Your task to perform on an android device: all mails in gmail Image 0: 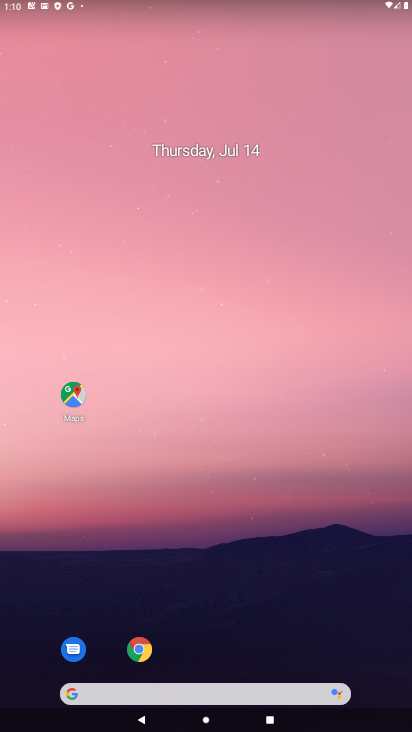
Step 0: drag from (370, 666) to (203, 11)
Your task to perform on an android device: all mails in gmail Image 1: 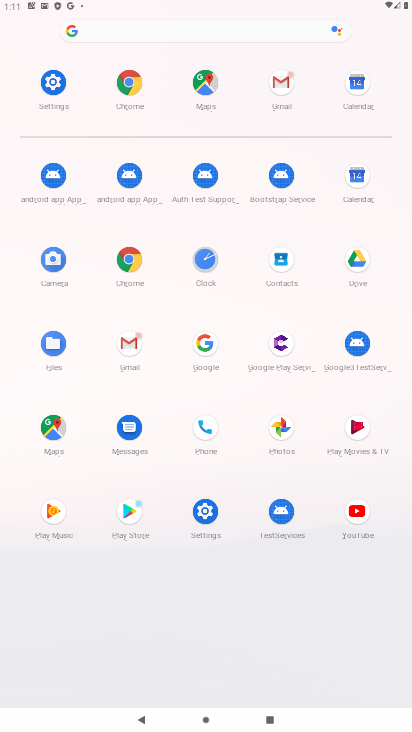
Step 1: click (123, 358)
Your task to perform on an android device: all mails in gmail Image 2: 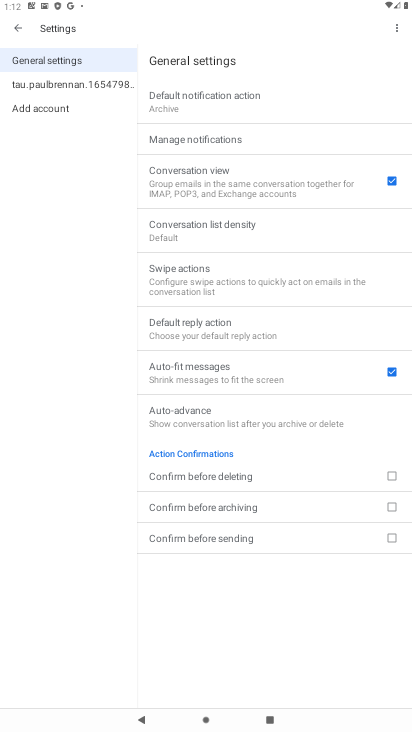
Step 2: press back button
Your task to perform on an android device: all mails in gmail Image 3: 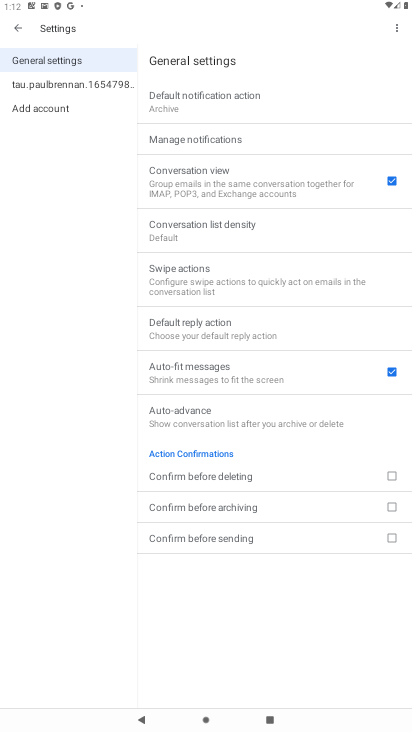
Step 3: click (16, 28)
Your task to perform on an android device: all mails in gmail Image 4: 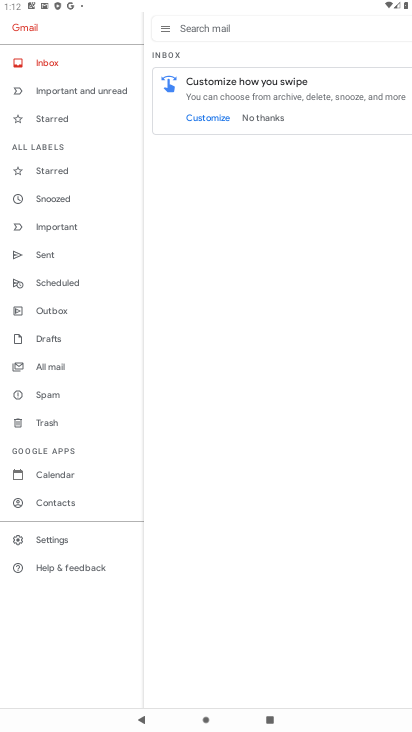
Step 4: click (53, 362)
Your task to perform on an android device: all mails in gmail Image 5: 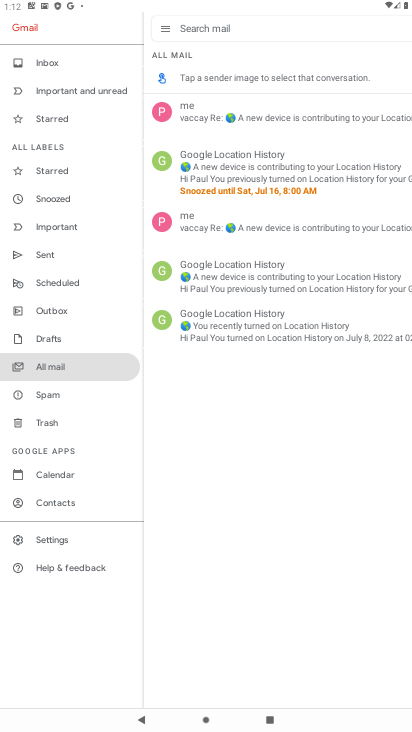
Step 5: task complete